Your task to perform on an android device: Empty the shopping cart on newegg. Add "usb-a to usb-b" to the cart on newegg, then select checkout. Image 0: 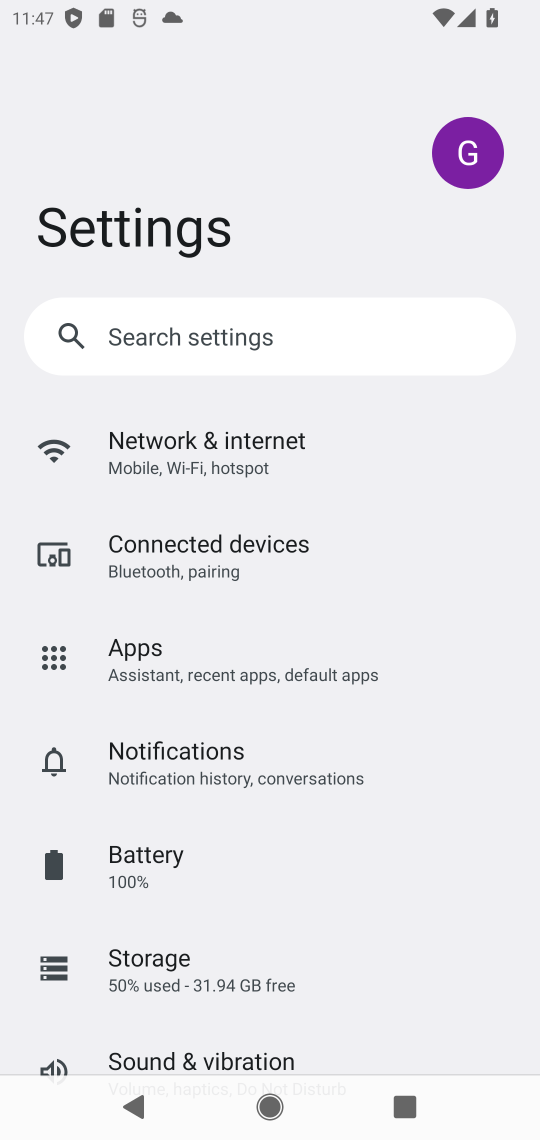
Step 0: press home button
Your task to perform on an android device: Empty the shopping cart on newegg. Add "usb-a to usb-b" to the cart on newegg, then select checkout. Image 1: 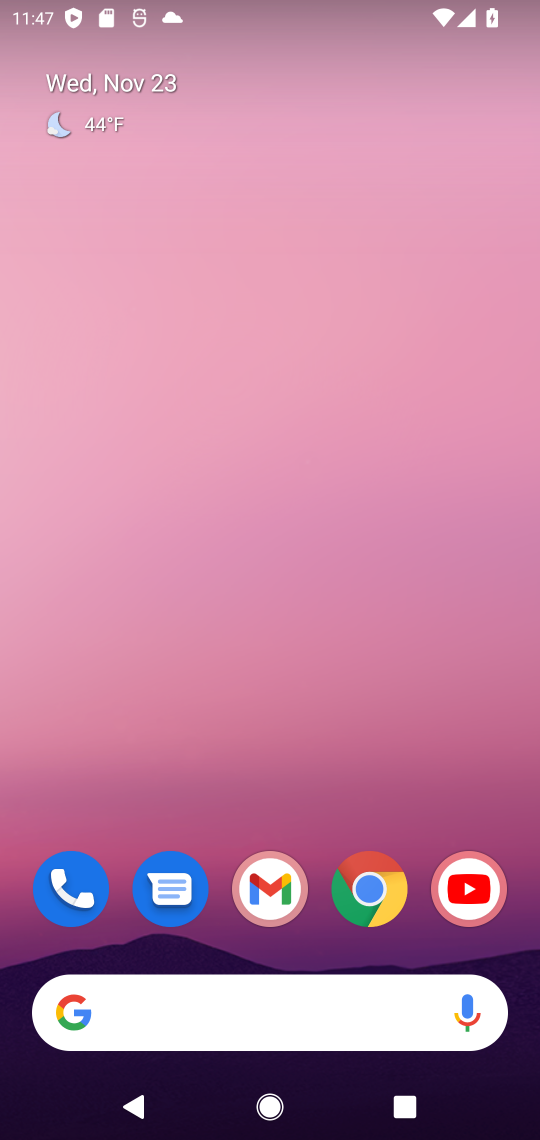
Step 1: click (373, 899)
Your task to perform on an android device: Empty the shopping cart on newegg. Add "usb-a to usb-b" to the cart on newegg, then select checkout. Image 2: 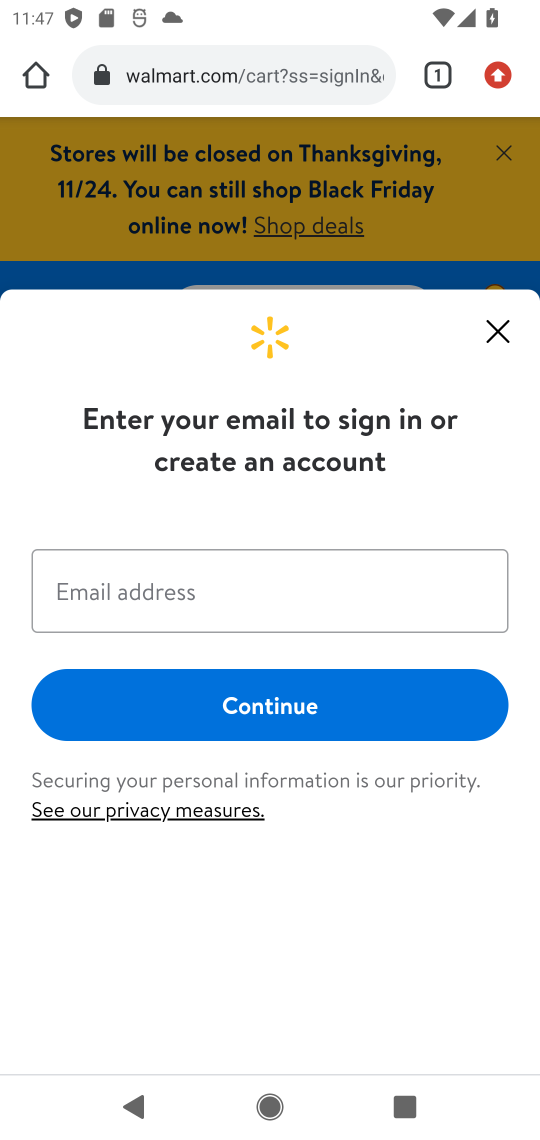
Step 2: click (236, 68)
Your task to perform on an android device: Empty the shopping cart on newegg. Add "usb-a to usb-b" to the cart on newegg, then select checkout. Image 3: 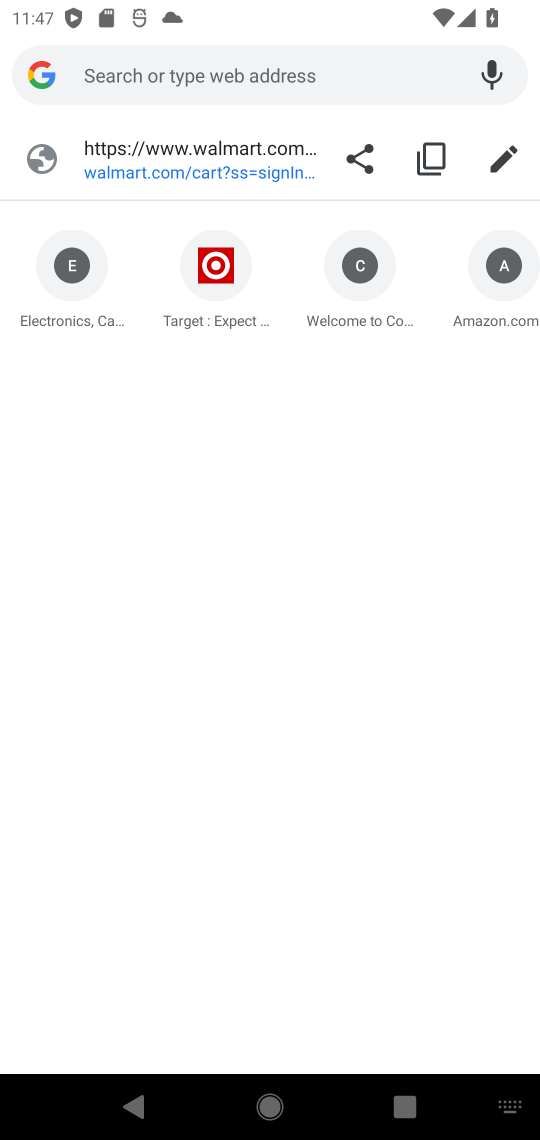
Step 3: type "newegg.com"
Your task to perform on an android device: Empty the shopping cart on newegg. Add "usb-a to usb-b" to the cart on newegg, then select checkout. Image 4: 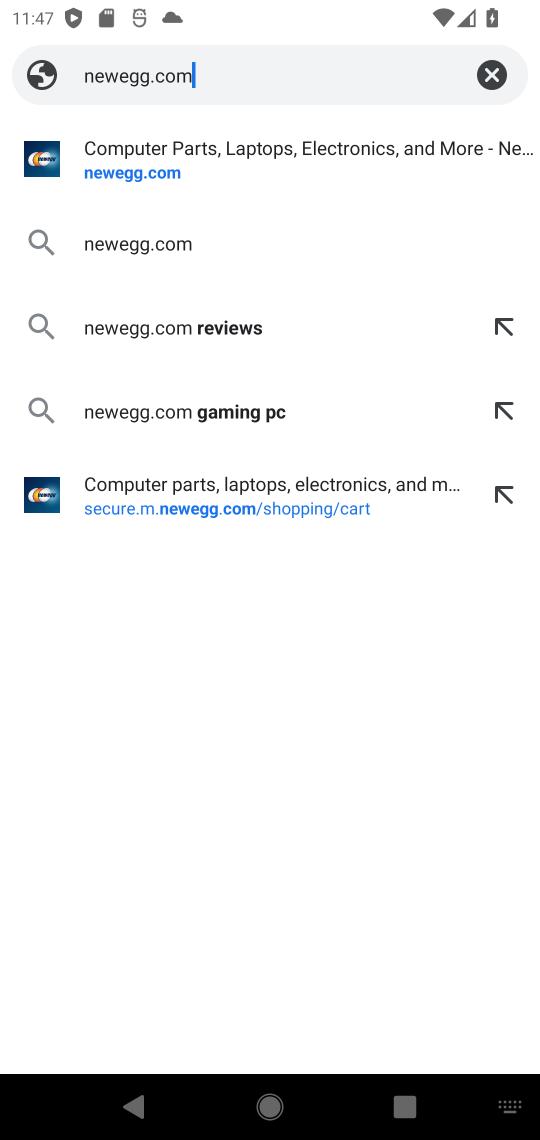
Step 4: click (116, 180)
Your task to perform on an android device: Empty the shopping cart on newegg. Add "usb-a to usb-b" to the cart on newegg, then select checkout. Image 5: 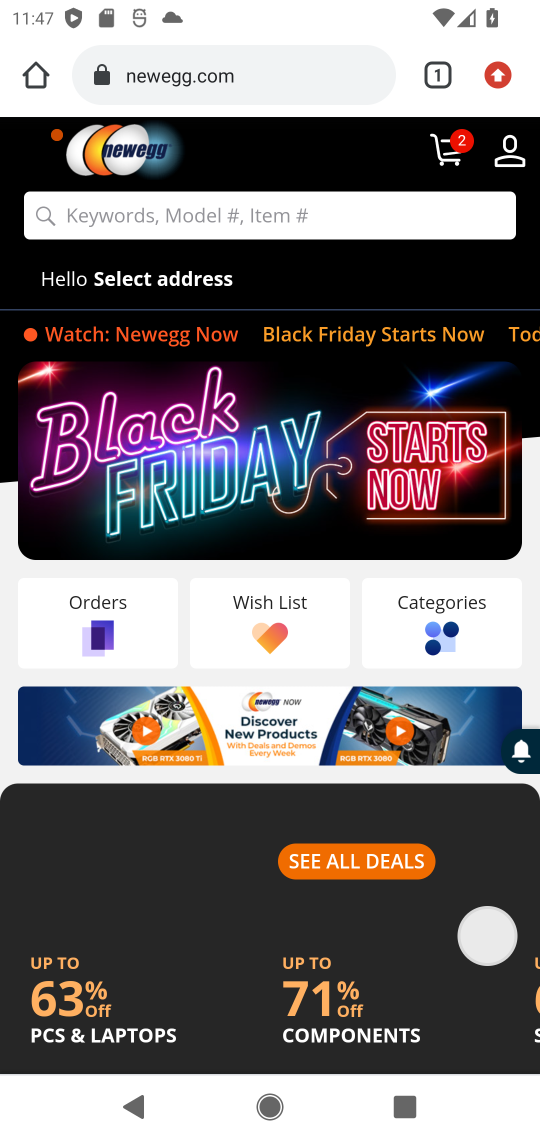
Step 5: click (451, 154)
Your task to perform on an android device: Empty the shopping cart on newegg. Add "usb-a to usb-b" to the cart on newegg, then select checkout. Image 6: 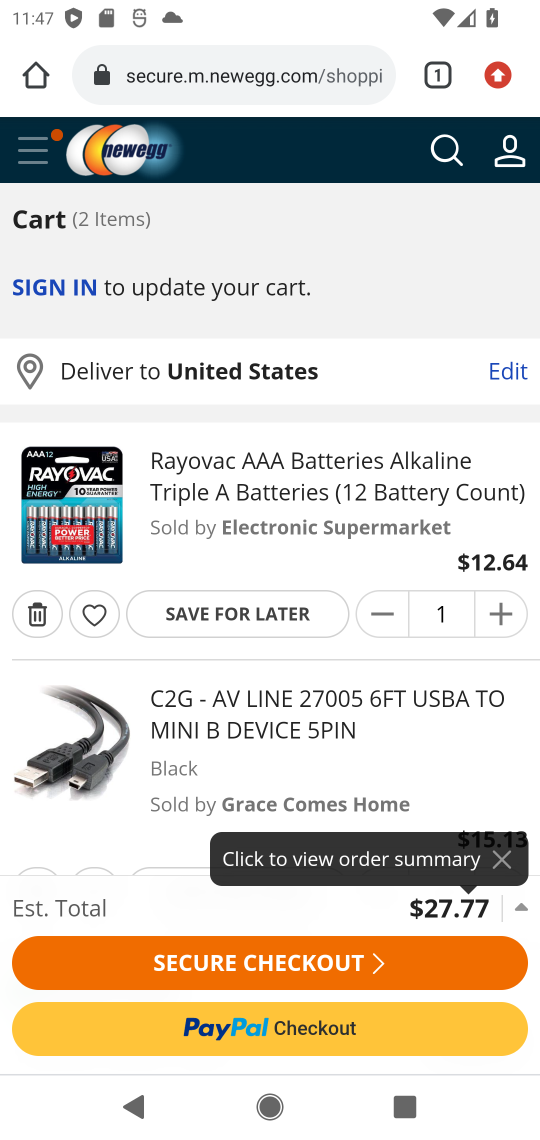
Step 6: click (31, 624)
Your task to perform on an android device: Empty the shopping cart on newegg. Add "usb-a to usb-b" to the cart on newegg, then select checkout. Image 7: 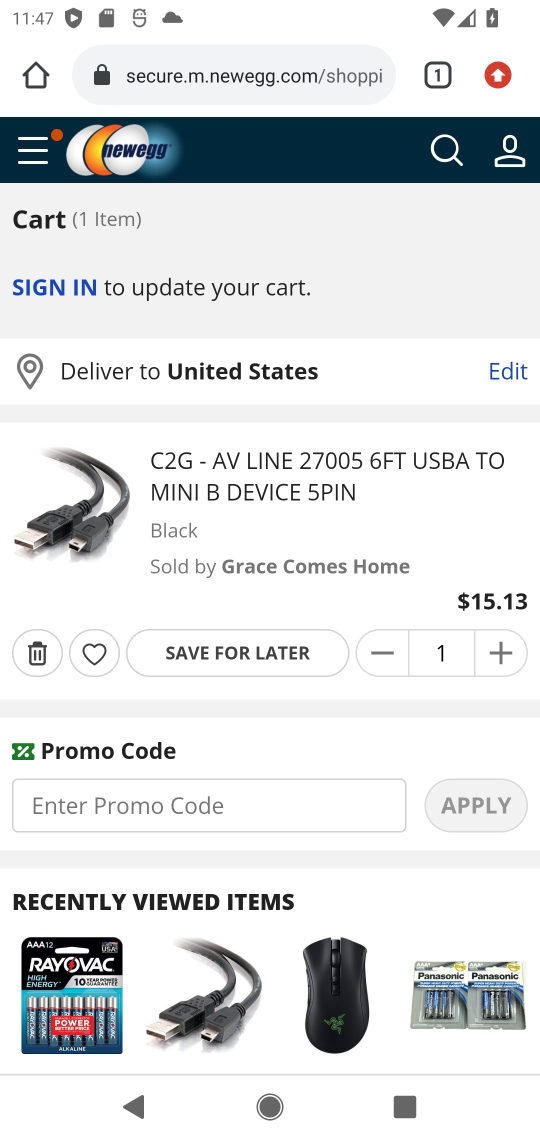
Step 7: click (39, 657)
Your task to perform on an android device: Empty the shopping cart on newegg. Add "usb-a to usb-b" to the cart on newegg, then select checkout. Image 8: 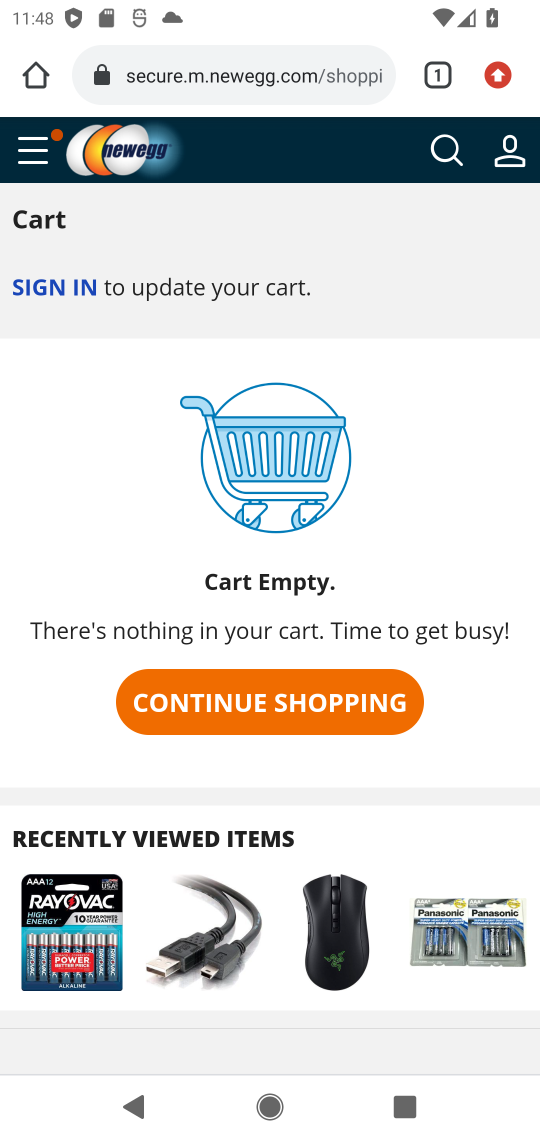
Step 8: click (444, 158)
Your task to perform on an android device: Empty the shopping cart on newegg. Add "usb-a to usb-b" to the cart on newegg, then select checkout. Image 9: 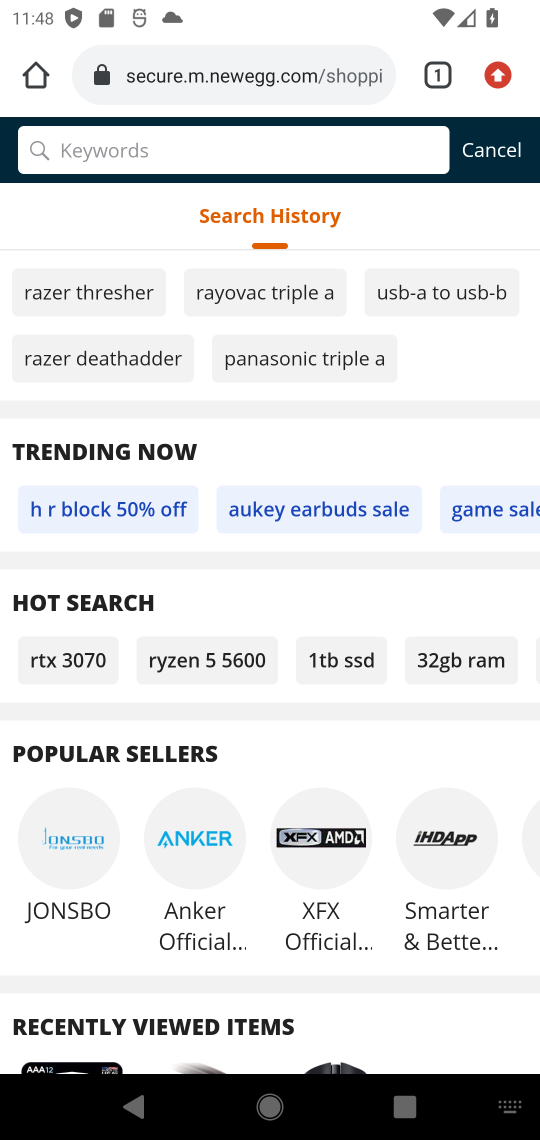
Step 9: type "usb-a to usb-b"
Your task to perform on an android device: Empty the shopping cart on newegg. Add "usb-a to usb-b" to the cart on newegg, then select checkout. Image 10: 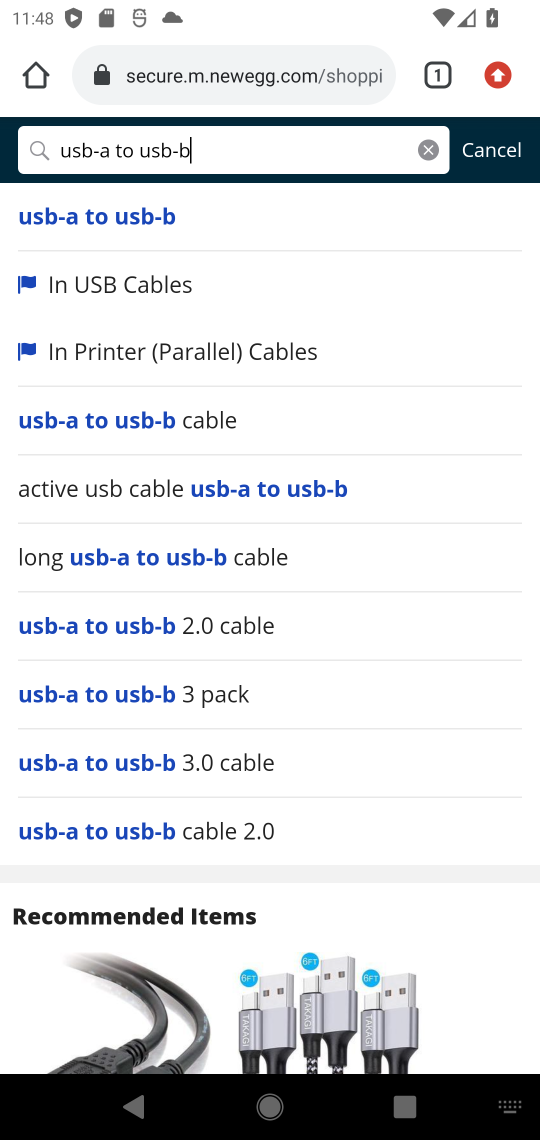
Step 10: click (102, 231)
Your task to perform on an android device: Empty the shopping cart on newegg. Add "usb-a to usb-b" to the cart on newegg, then select checkout. Image 11: 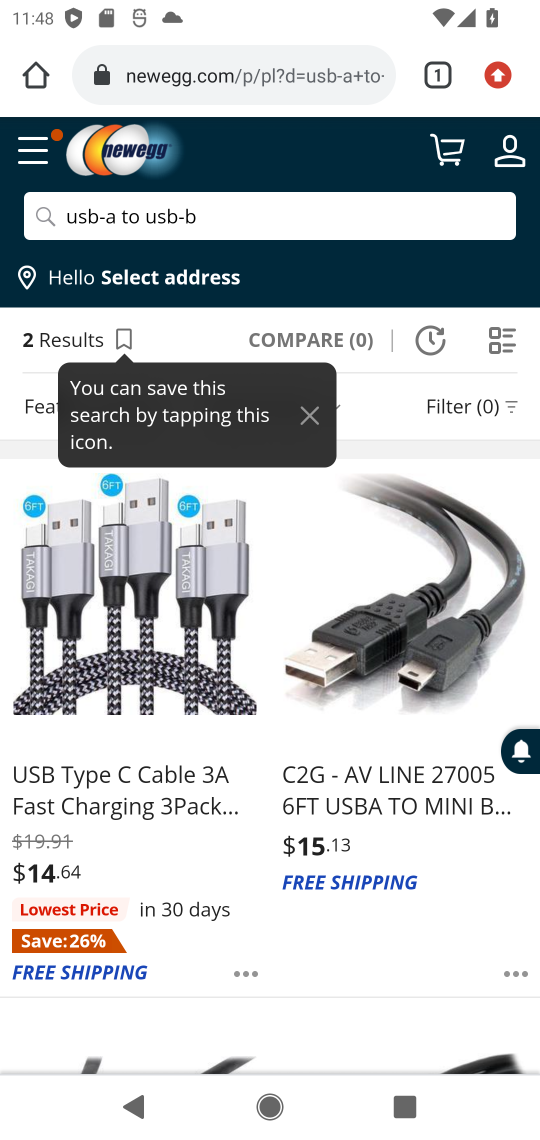
Step 11: drag from (110, 820) to (136, 678)
Your task to perform on an android device: Empty the shopping cart on newegg. Add "usb-a to usb-b" to the cart on newegg, then select checkout. Image 12: 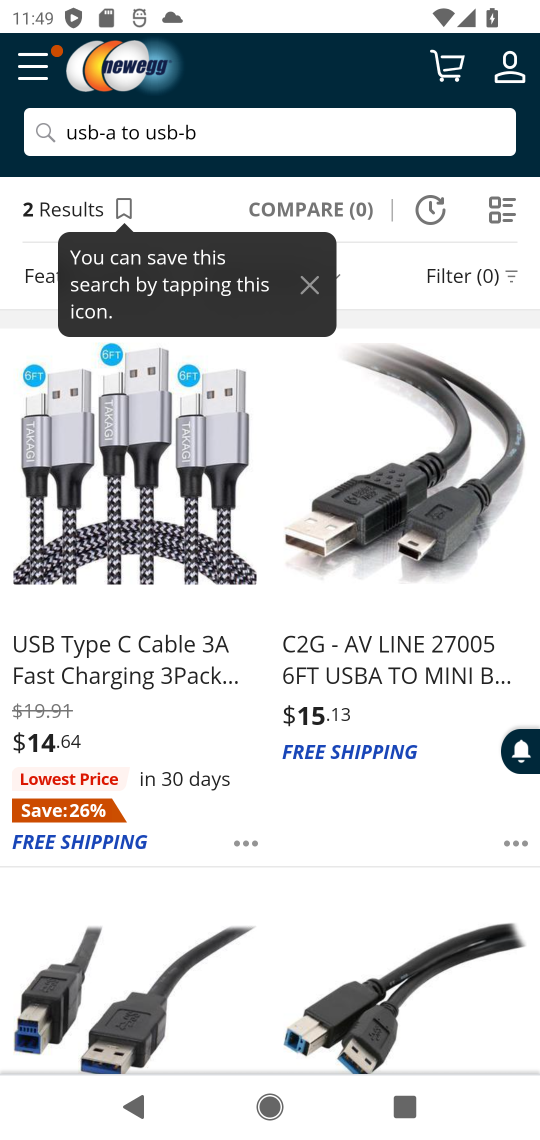
Step 12: click (389, 551)
Your task to perform on an android device: Empty the shopping cart on newegg. Add "usb-a to usb-b" to the cart on newegg, then select checkout. Image 13: 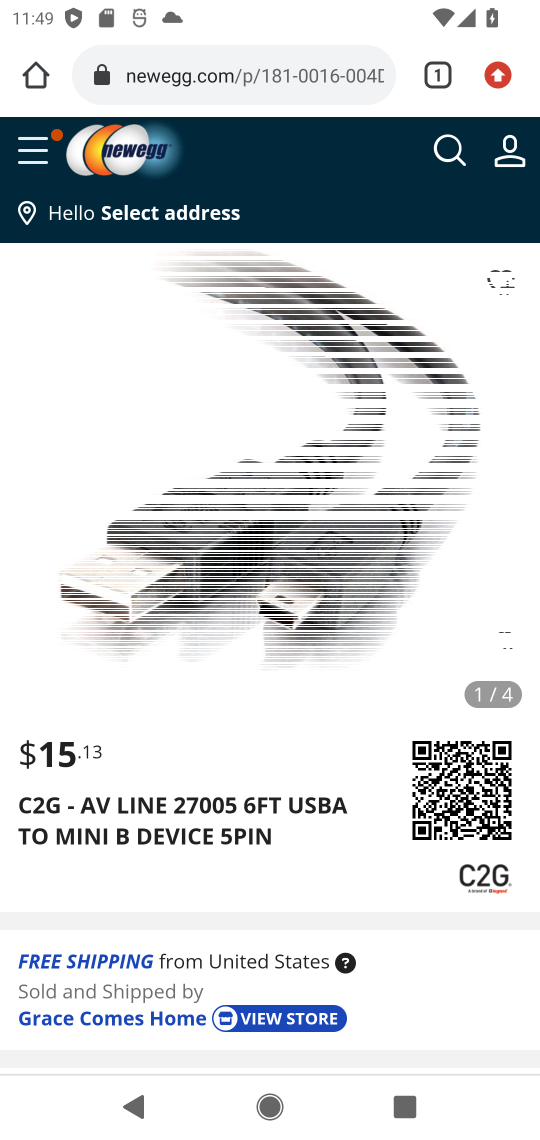
Step 13: task complete